Your task to perform on an android device: Go to Wikipedia Image 0: 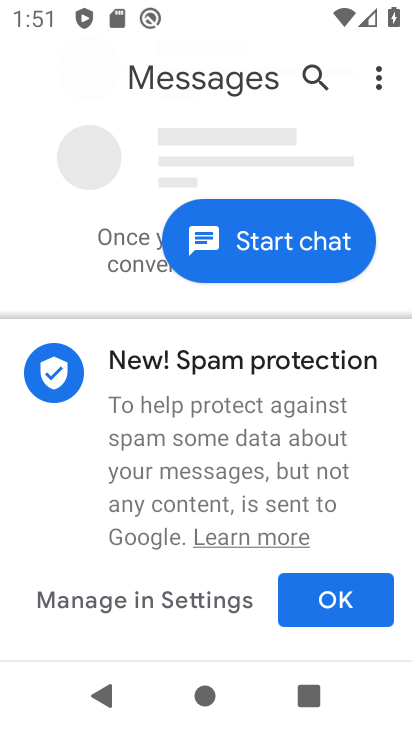
Step 0: press home button
Your task to perform on an android device: Go to Wikipedia Image 1: 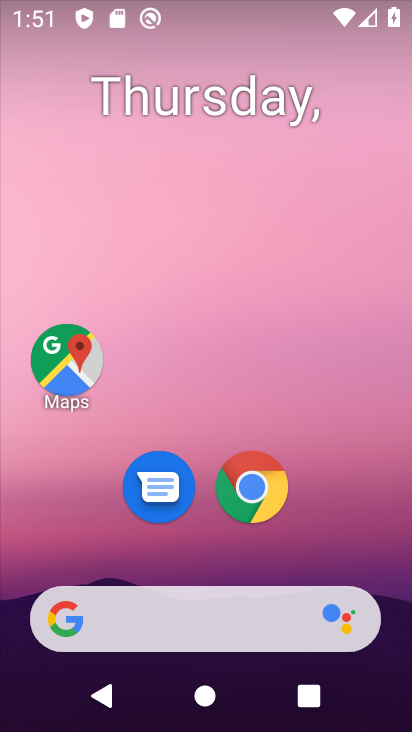
Step 1: click (247, 493)
Your task to perform on an android device: Go to Wikipedia Image 2: 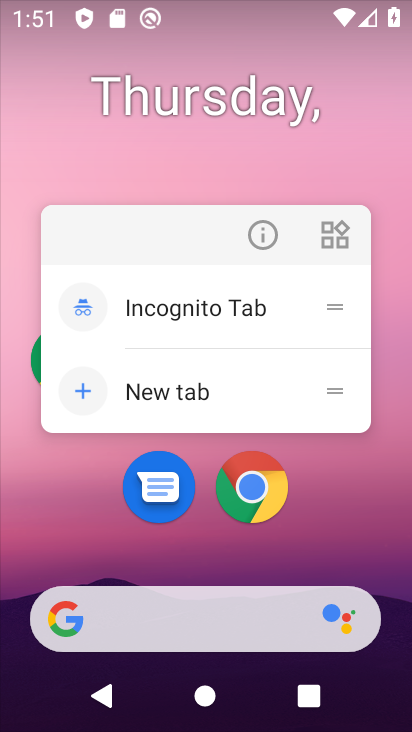
Step 2: click (247, 491)
Your task to perform on an android device: Go to Wikipedia Image 3: 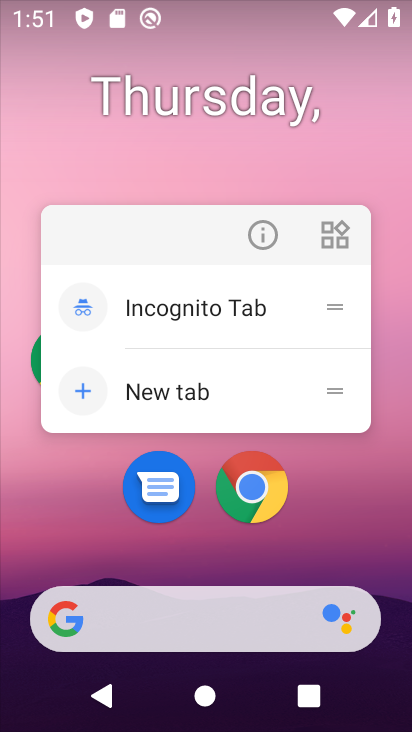
Step 3: click (248, 486)
Your task to perform on an android device: Go to Wikipedia Image 4: 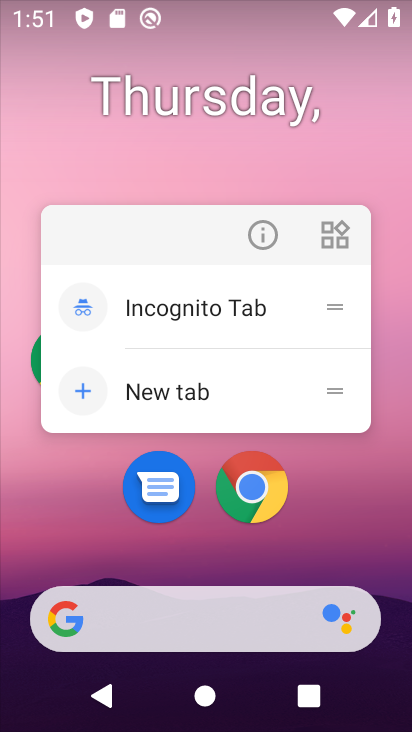
Step 4: click (246, 481)
Your task to perform on an android device: Go to Wikipedia Image 5: 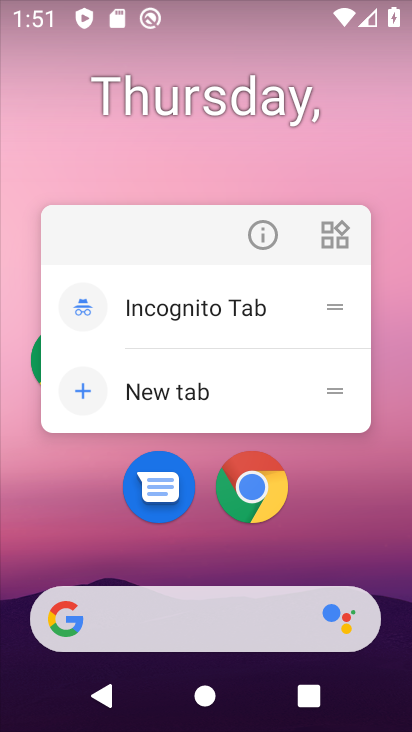
Step 5: click (241, 488)
Your task to perform on an android device: Go to Wikipedia Image 6: 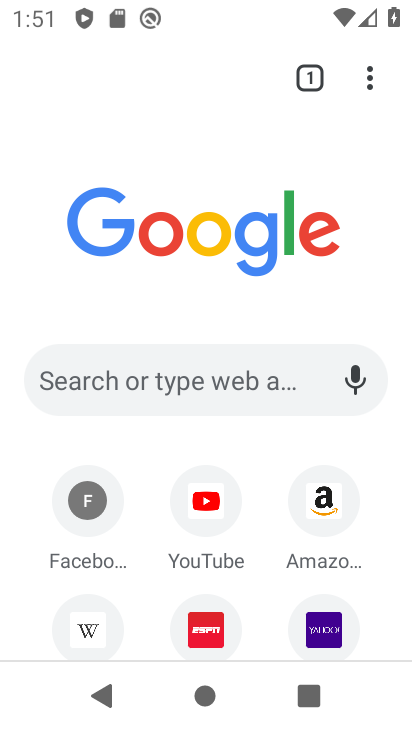
Step 6: click (82, 615)
Your task to perform on an android device: Go to Wikipedia Image 7: 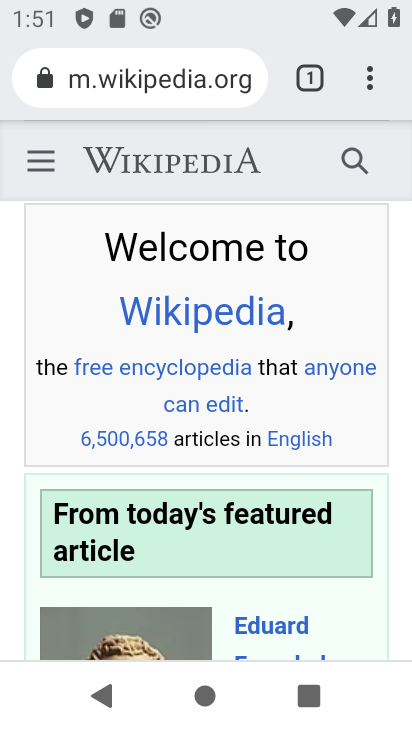
Step 7: task complete